Your task to perform on an android device: check android version Image 0: 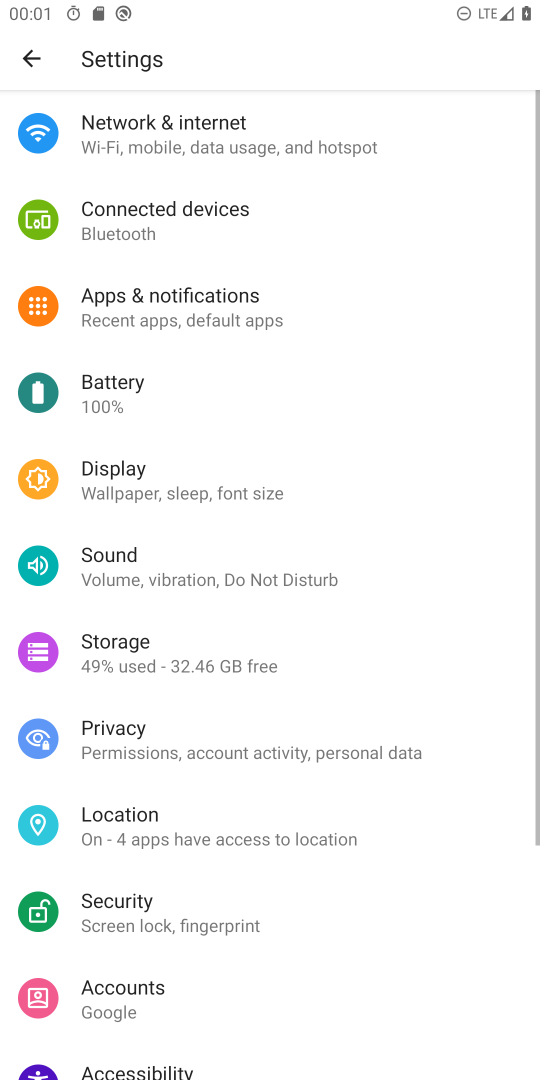
Step 0: press home button
Your task to perform on an android device: check android version Image 1: 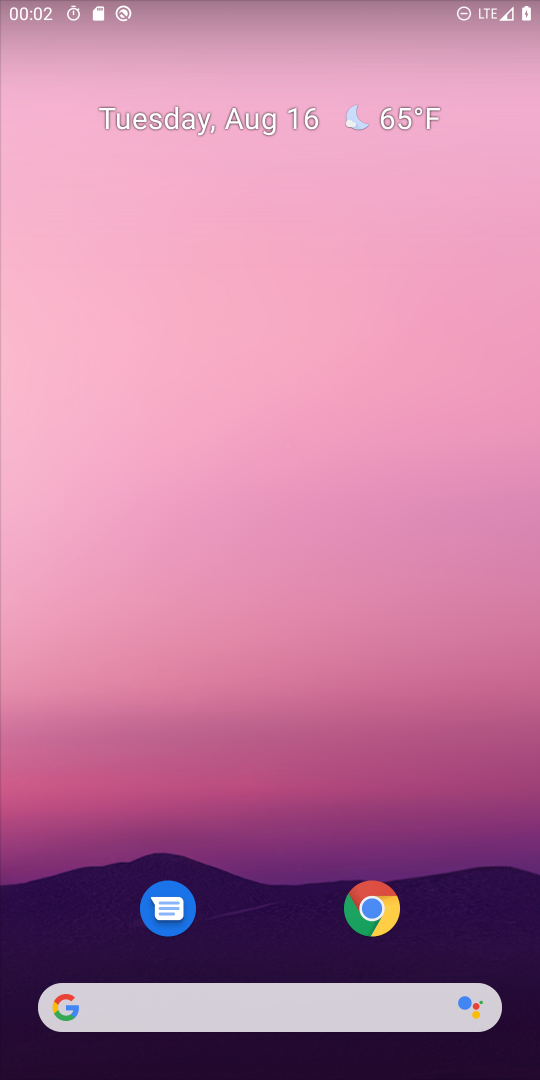
Step 1: click (419, 122)
Your task to perform on an android device: check android version Image 2: 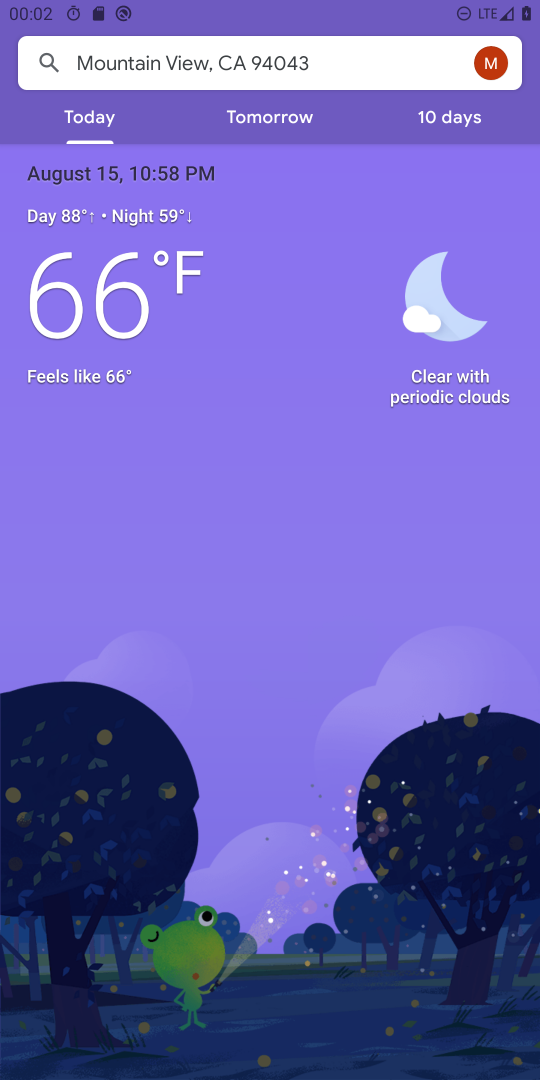
Step 2: press home button
Your task to perform on an android device: check android version Image 3: 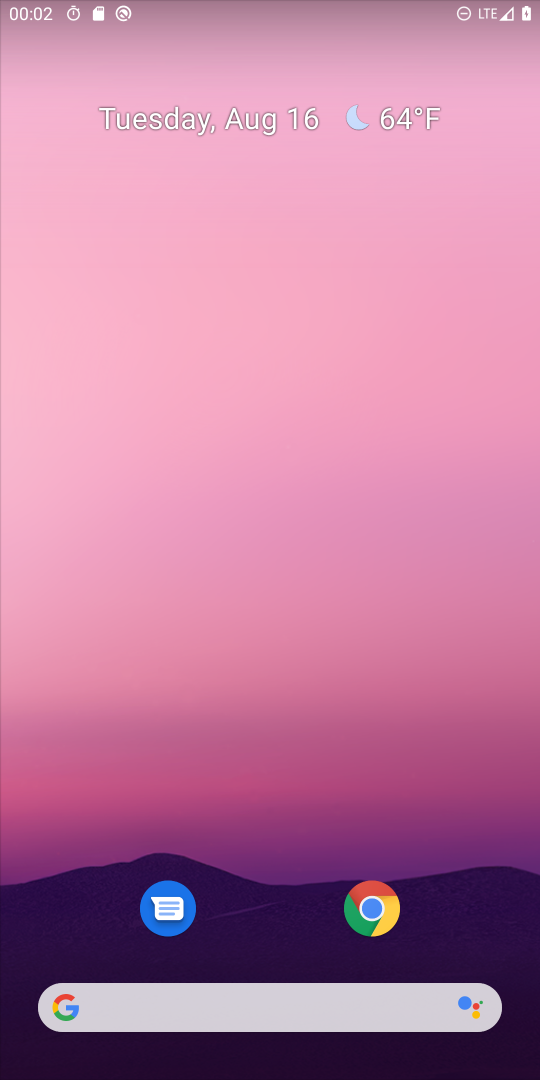
Step 3: drag from (262, 943) to (333, 102)
Your task to perform on an android device: check android version Image 4: 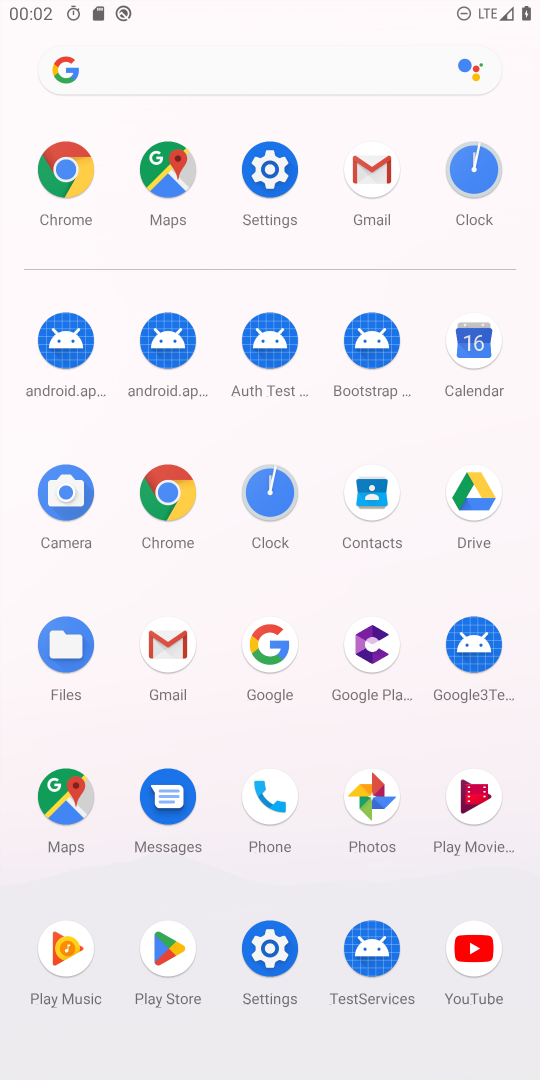
Step 4: click (260, 953)
Your task to perform on an android device: check android version Image 5: 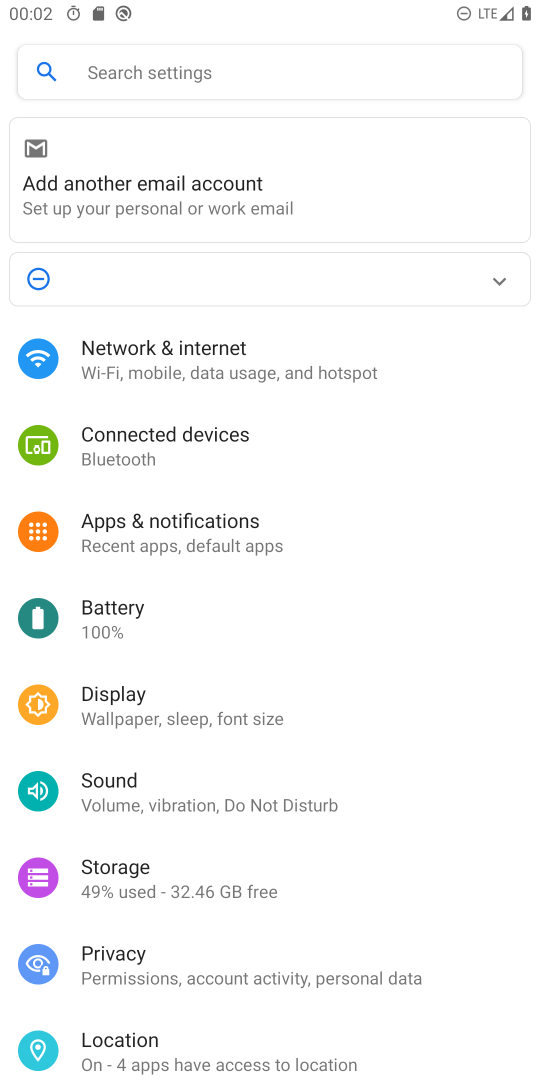
Step 5: drag from (260, 953) to (249, 110)
Your task to perform on an android device: check android version Image 6: 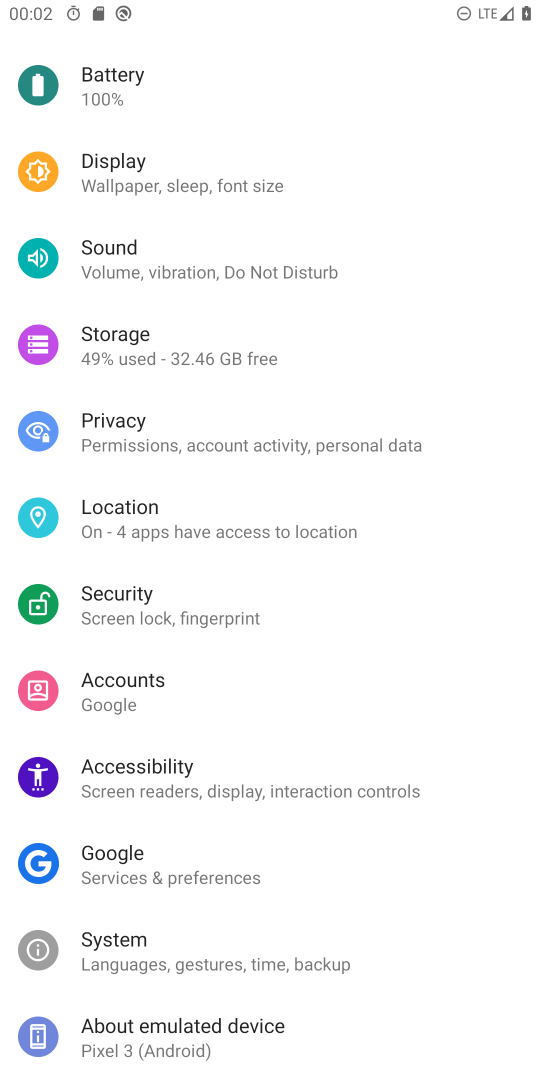
Step 6: drag from (148, 987) to (263, 3)
Your task to perform on an android device: check android version Image 7: 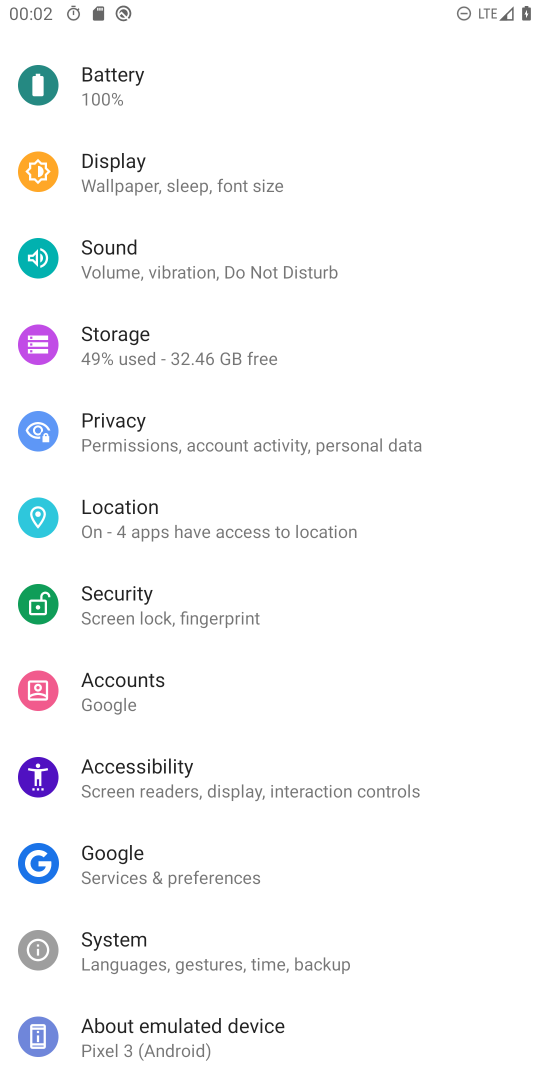
Step 7: drag from (226, 1016) to (233, 210)
Your task to perform on an android device: check android version Image 8: 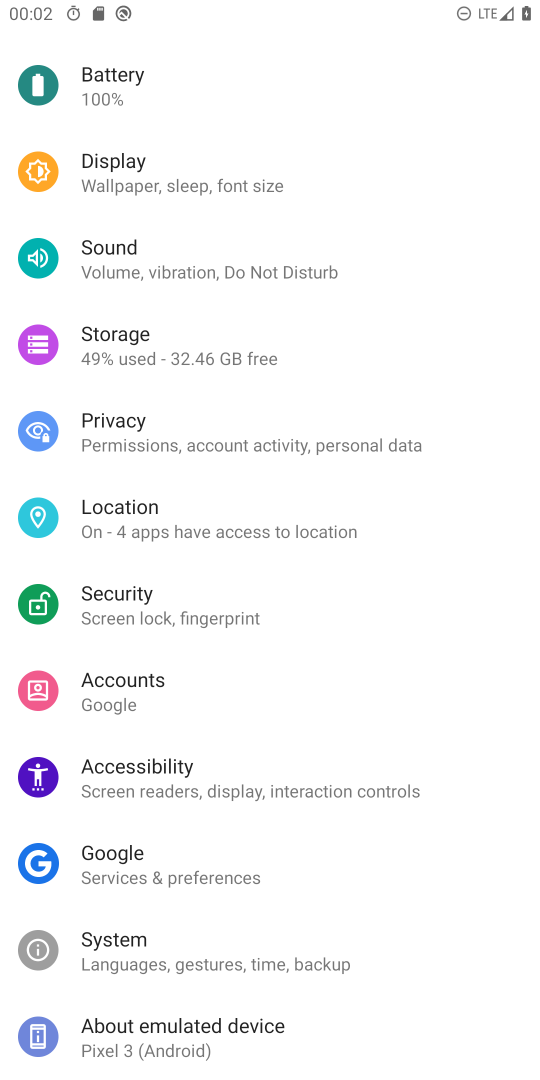
Step 8: click (233, 1058)
Your task to perform on an android device: check android version Image 9: 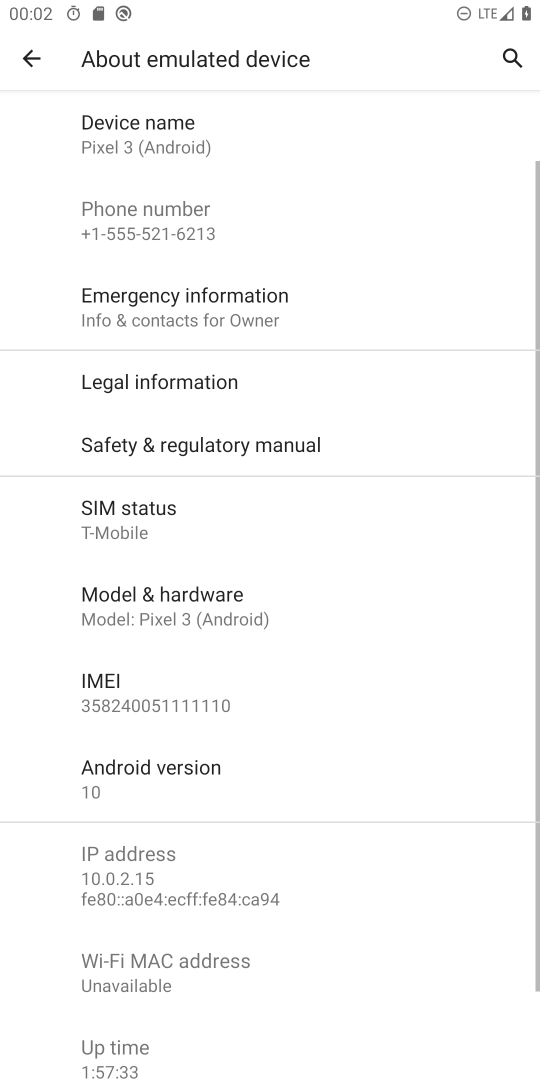
Step 9: click (216, 791)
Your task to perform on an android device: check android version Image 10: 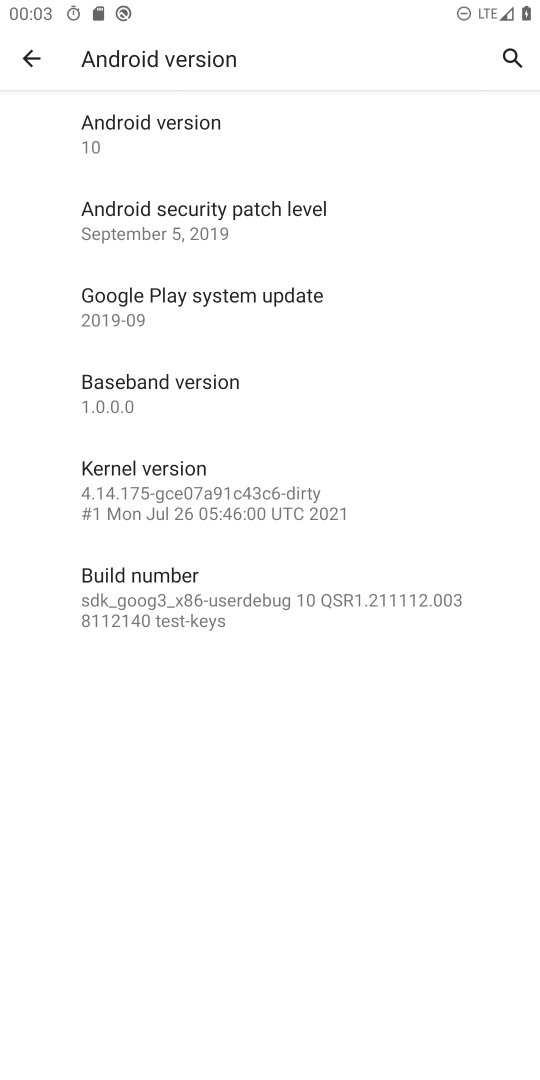
Step 10: task complete